Your task to perform on an android device: Open eBay Image 0: 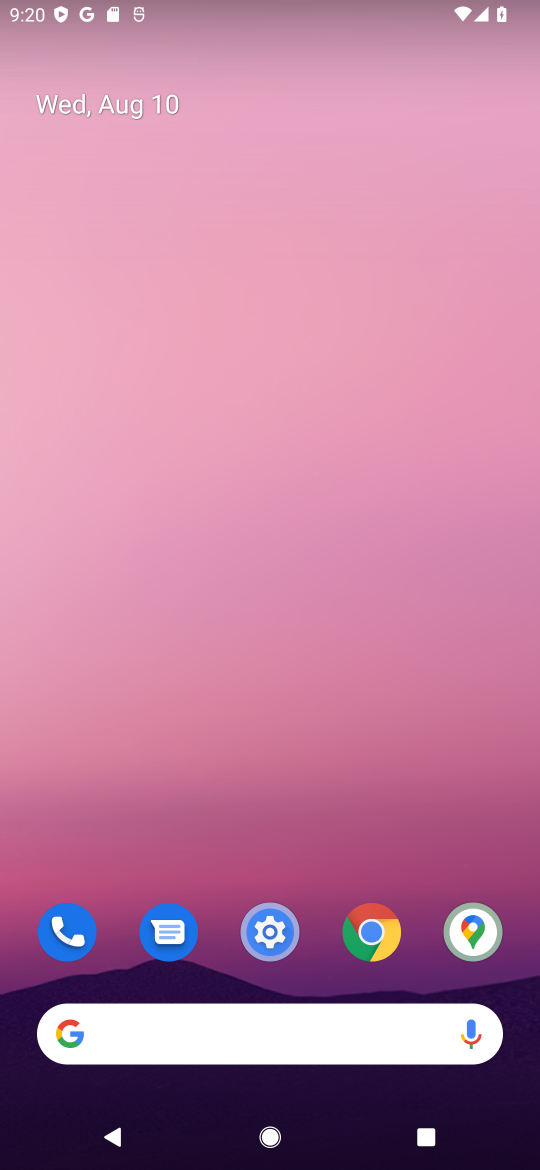
Step 0: click (367, 936)
Your task to perform on an android device: Open eBay Image 1: 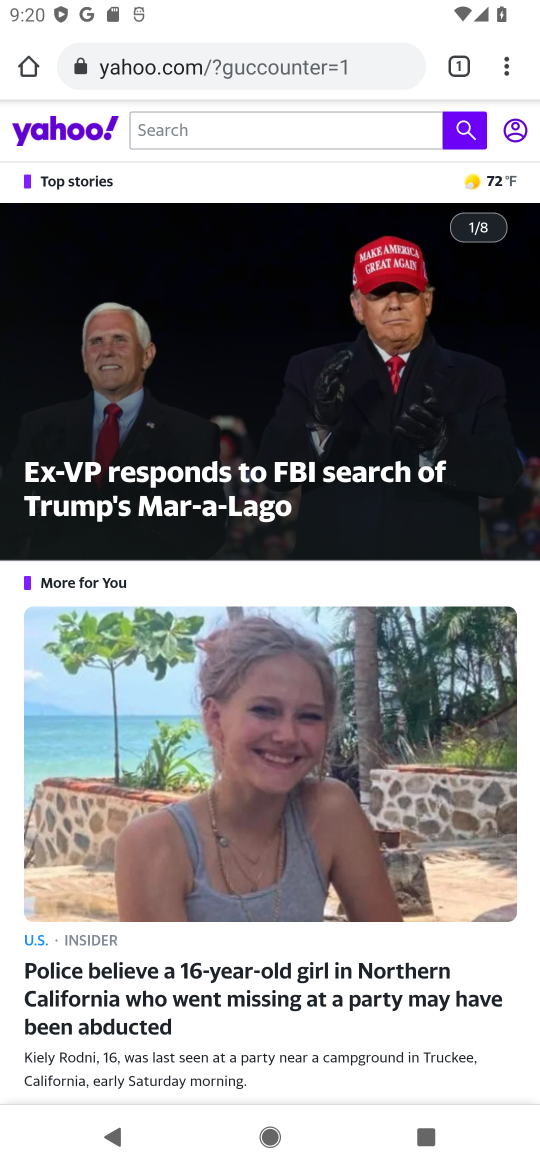
Step 1: click (512, 55)
Your task to perform on an android device: Open eBay Image 2: 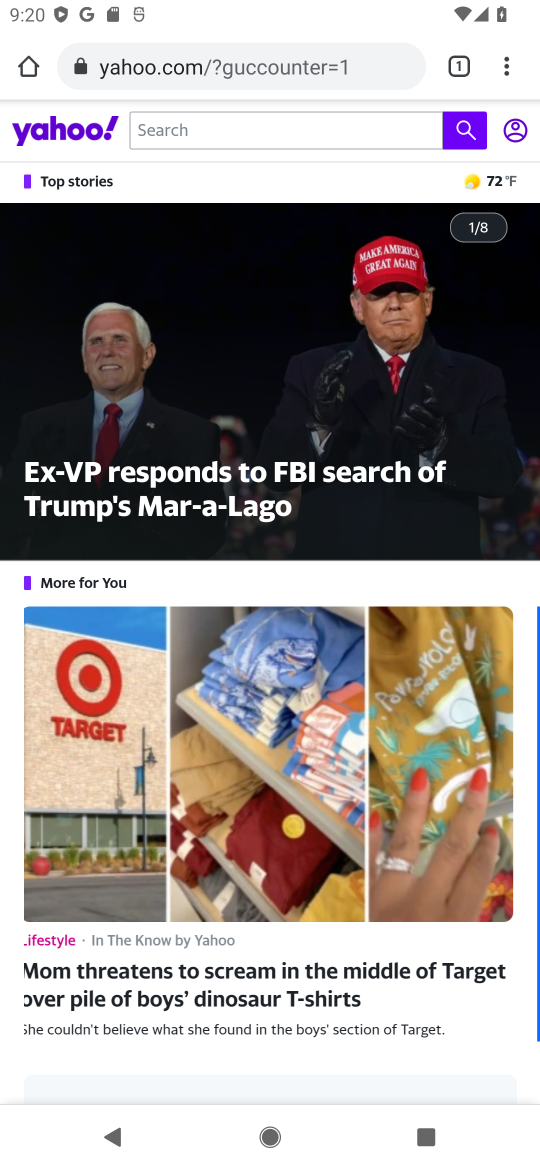
Step 2: click (483, 67)
Your task to perform on an android device: Open eBay Image 3: 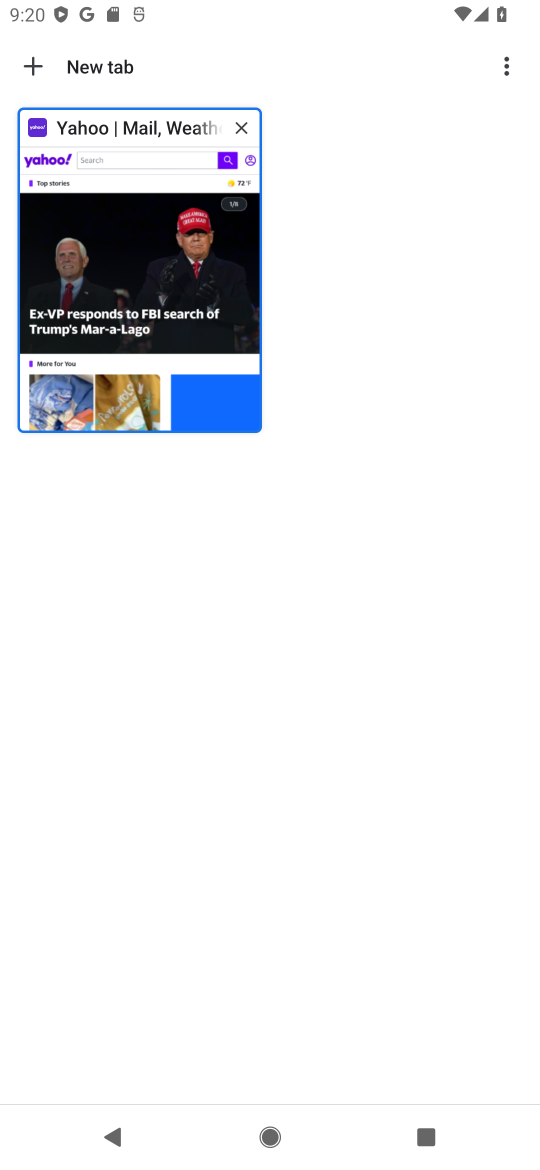
Step 3: click (32, 59)
Your task to perform on an android device: Open eBay Image 4: 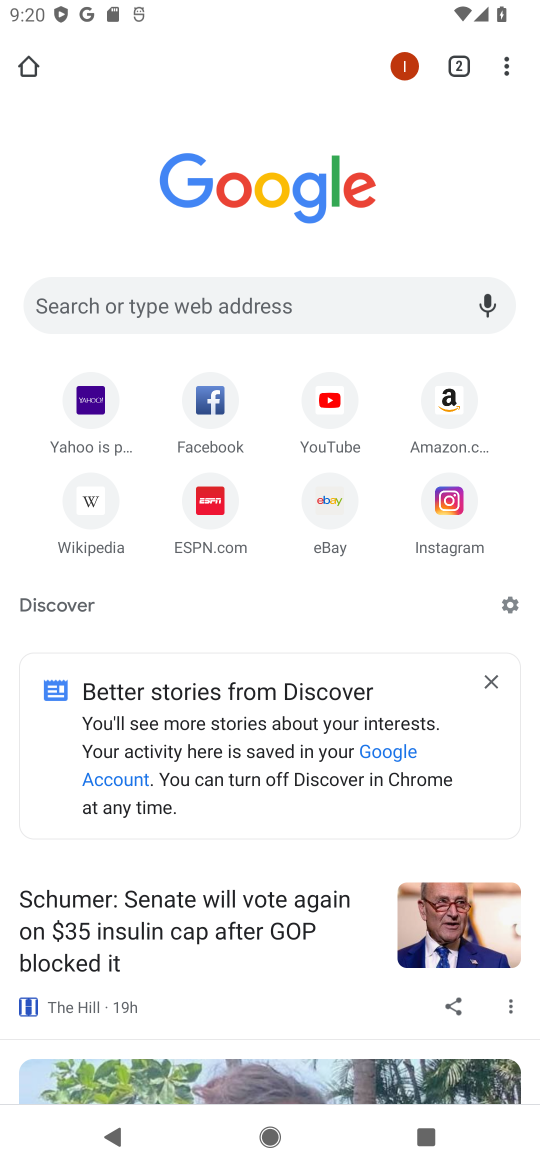
Step 4: click (327, 490)
Your task to perform on an android device: Open eBay Image 5: 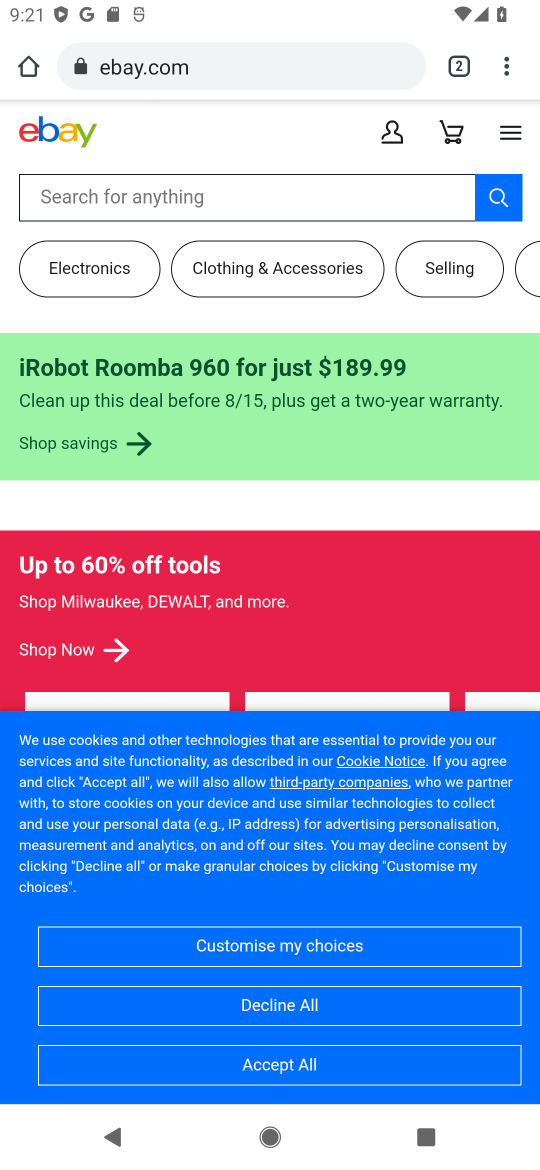
Step 5: task complete